Your task to perform on an android device: turn on the 24-hour format for clock Image 0: 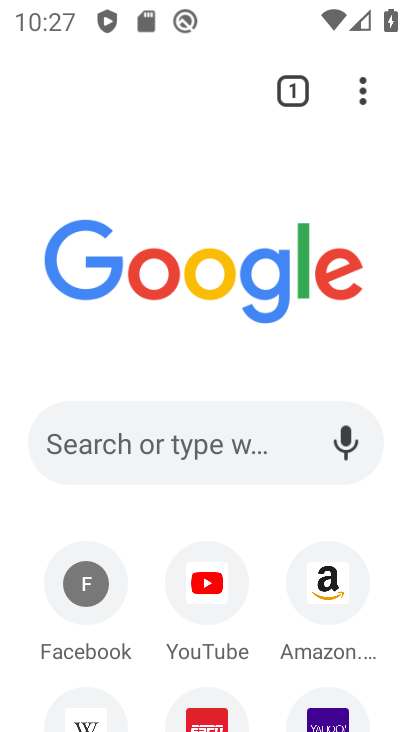
Step 0: click (377, 85)
Your task to perform on an android device: turn on the 24-hour format for clock Image 1: 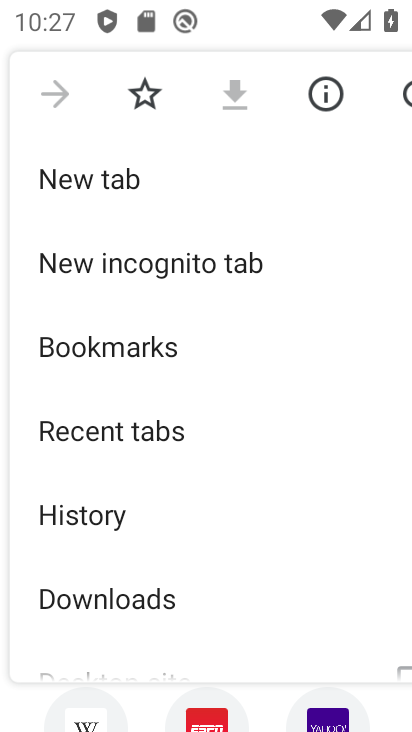
Step 1: press home button
Your task to perform on an android device: turn on the 24-hour format for clock Image 2: 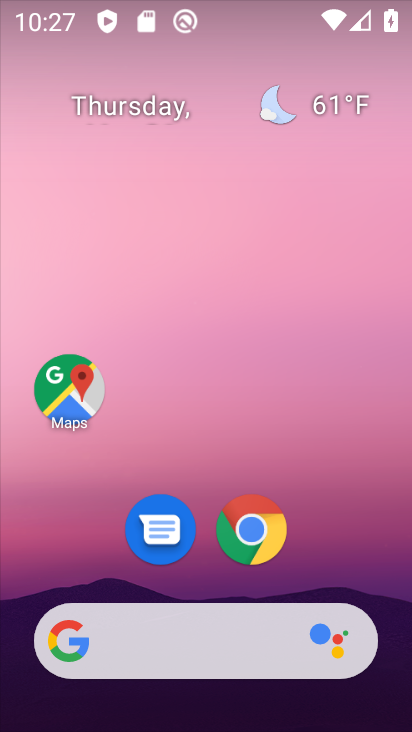
Step 2: drag from (347, 533) to (351, 15)
Your task to perform on an android device: turn on the 24-hour format for clock Image 3: 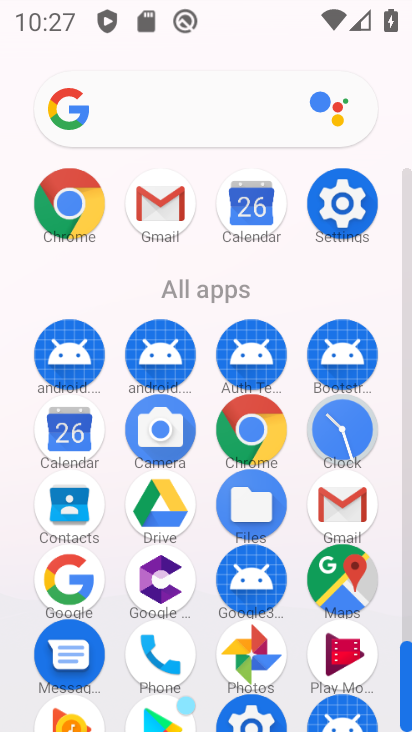
Step 3: click (346, 422)
Your task to perform on an android device: turn on the 24-hour format for clock Image 4: 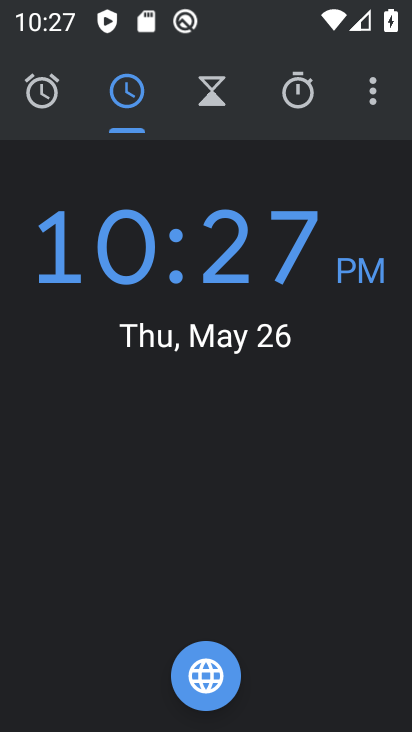
Step 4: click (381, 100)
Your task to perform on an android device: turn on the 24-hour format for clock Image 5: 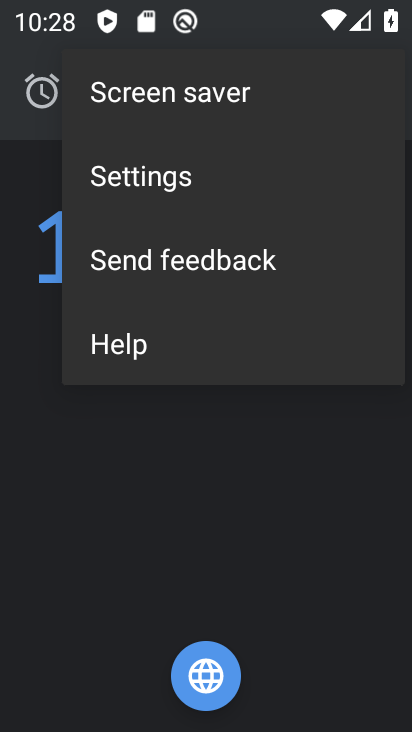
Step 5: click (213, 187)
Your task to perform on an android device: turn on the 24-hour format for clock Image 6: 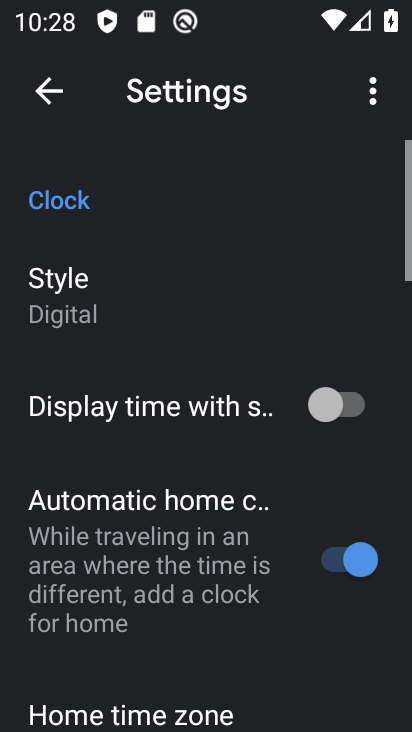
Step 6: drag from (246, 510) to (270, 145)
Your task to perform on an android device: turn on the 24-hour format for clock Image 7: 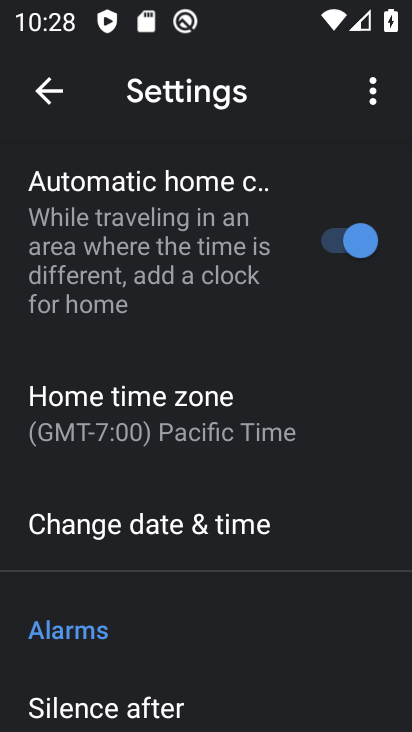
Step 7: click (244, 532)
Your task to perform on an android device: turn on the 24-hour format for clock Image 8: 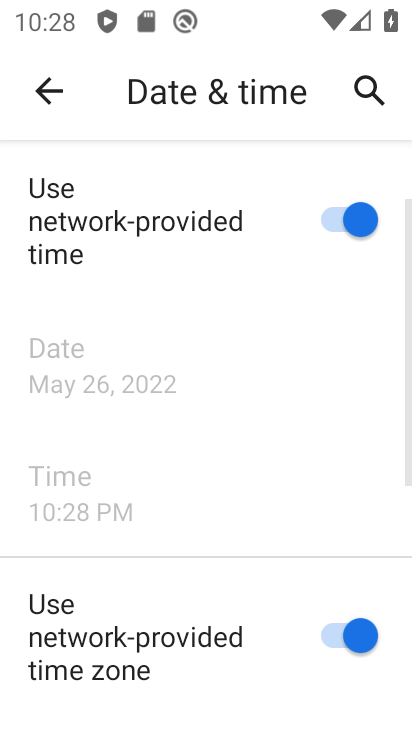
Step 8: drag from (225, 607) to (238, 105)
Your task to perform on an android device: turn on the 24-hour format for clock Image 9: 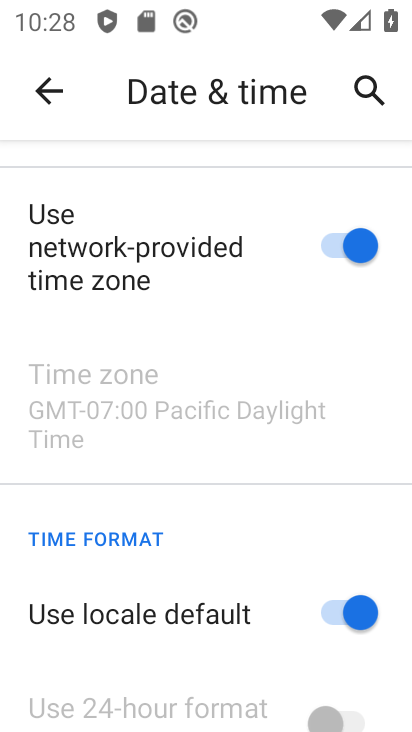
Step 9: drag from (168, 555) to (216, 292)
Your task to perform on an android device: turn on the 24-hour format for clock Image 10: 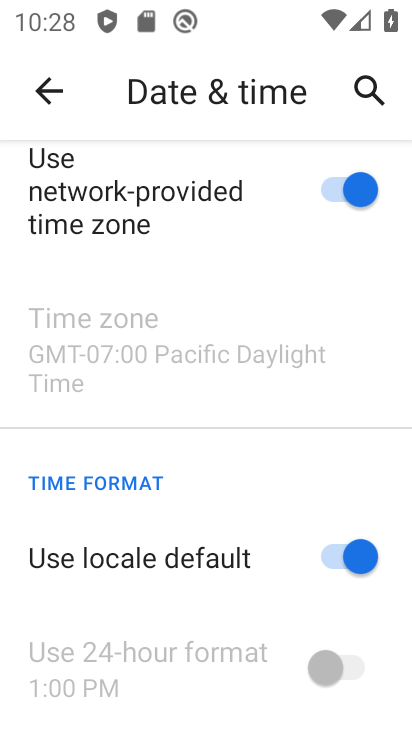
Step 10: click (366, 541)
Your task to perform on an android device: turn on the 24-hour format for clock Image 11: 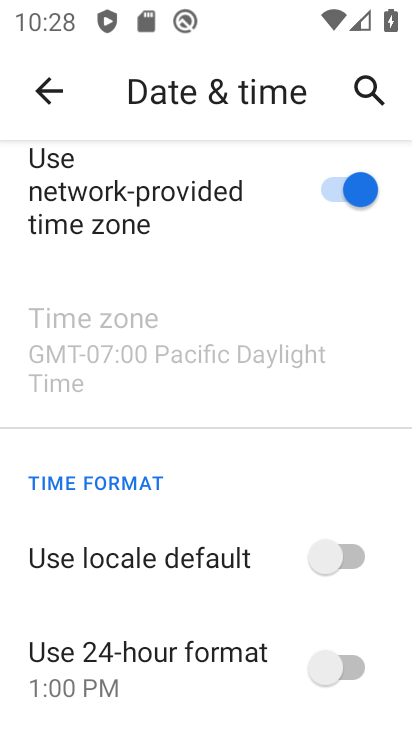
Step 11: click (326, 661)
Your task to perform on an android device: turn on the 24-hour format for clock Image 12: 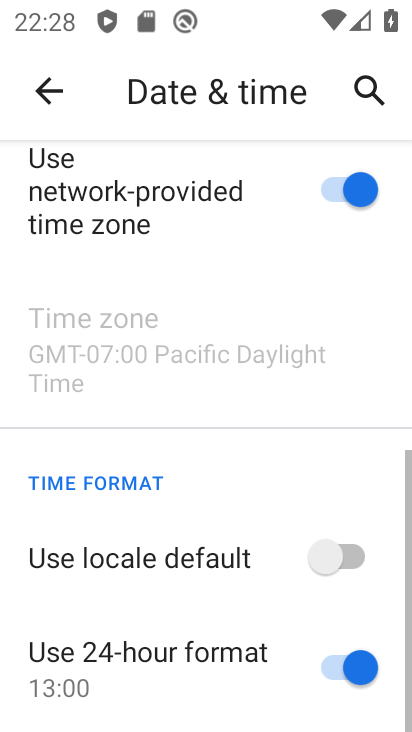
Step 12: task complete